Your task to perform on an android device: turn on airplane mode Image 0: 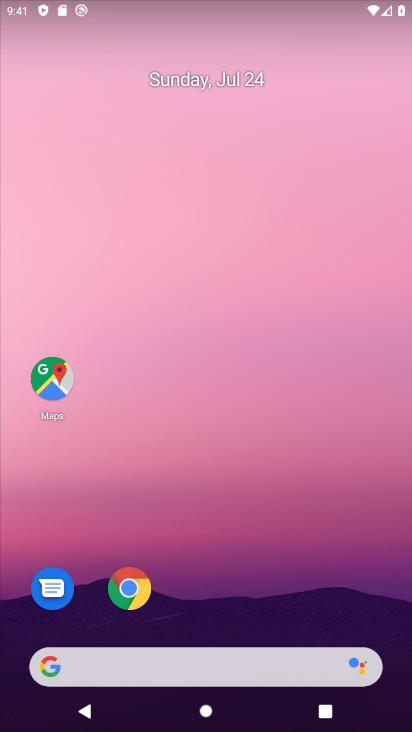
Step 0: drag from (248, 644) to (290, 298)
Your task to perform on an android device: turn on airplane mode Image 1: 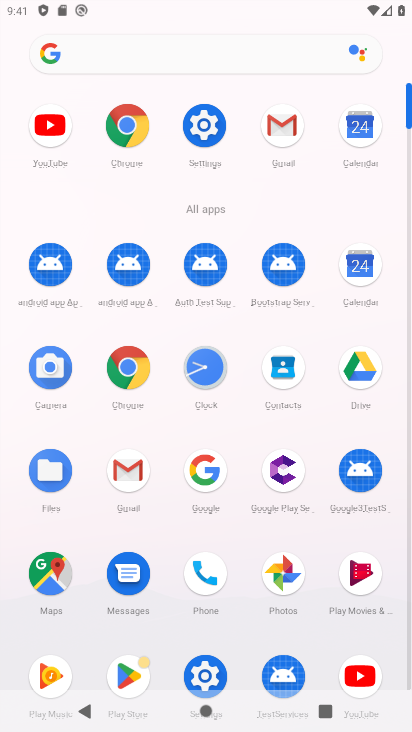
Step 1: click (204, 127)
Your task to perform on an android device: turn on airplane mode Image 2: 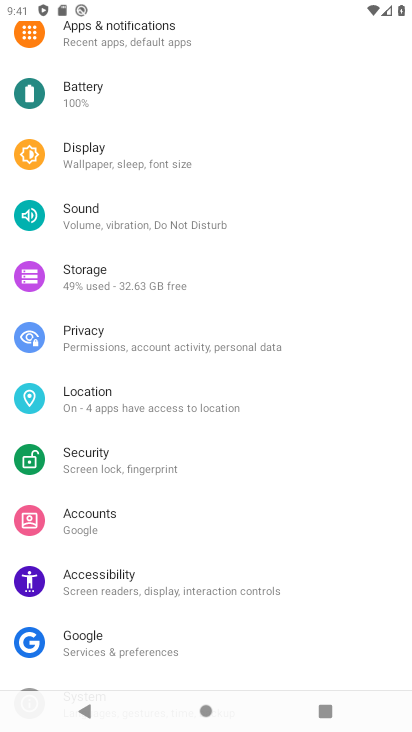
Step 2: drag from (128, 189) to (207, 585)
Your task to perform on an android device: turn on airplane mode Image 3: 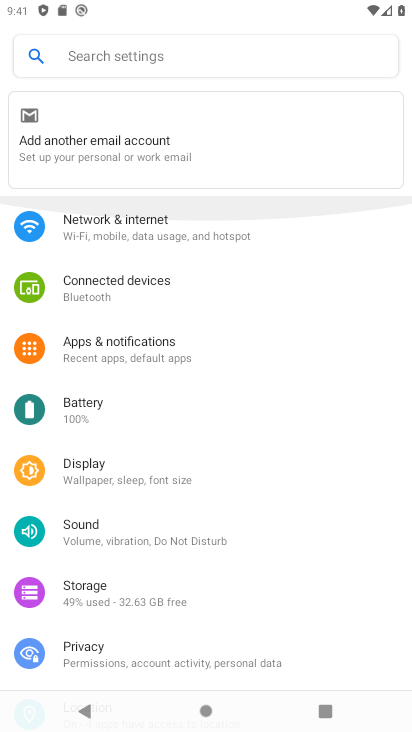
Step 3: drag from (123, 178) to (134, 385)
Your task to perform on an android device: turn on airplane mode Image 4: 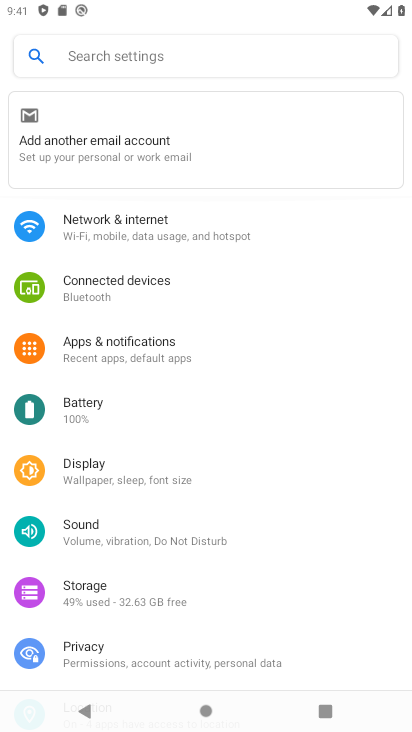
Step 4: drag from (158, 120) to (159, 554)
Your task to perform on an android device: turn on airplane mode Image 5: 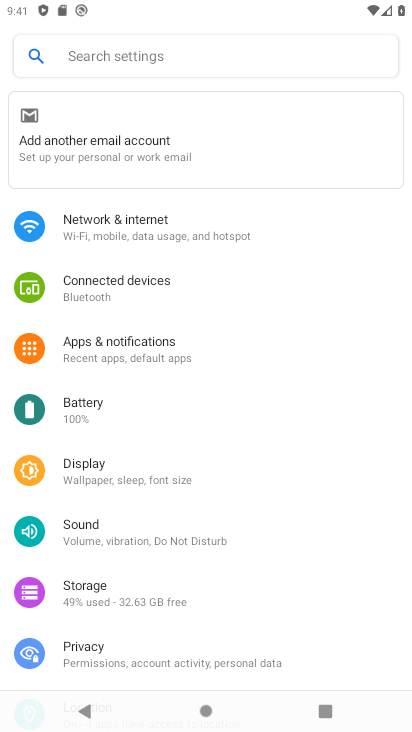
Step 5: click (133, 351)
Your task to perform on an android device: turn on airplane mode Image 6: 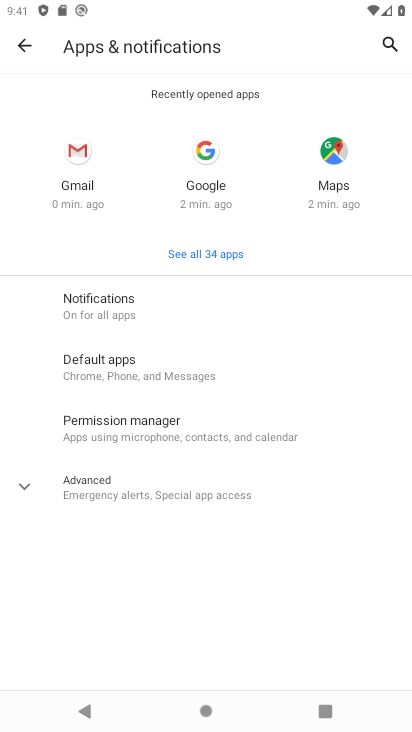
Step 6: click (110, 308)
Your task to perform on an android device: turn on airplane mode Image 7: 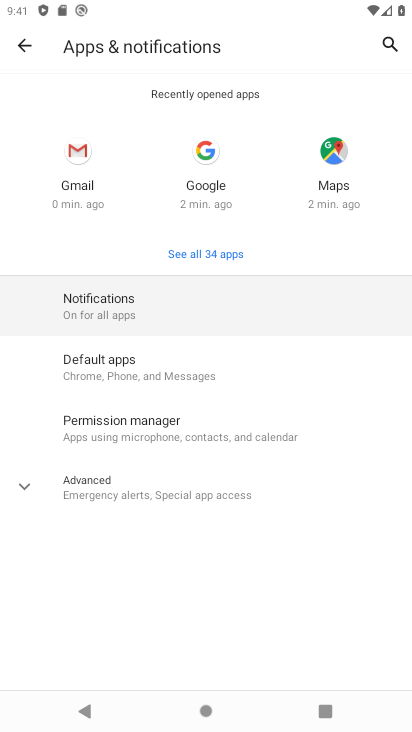
Step 7: click (118, 299)
Your task to perform on an android device: turn on airplane mode Image 8: 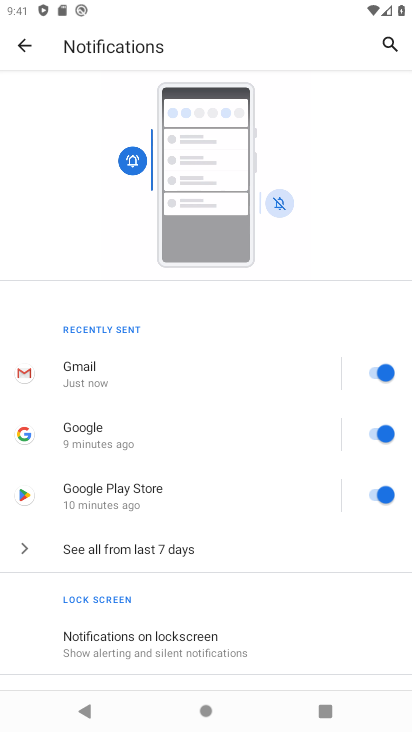
Step 8: press back button
Your task to perform on an android device: turn on airplane mode Image 9: 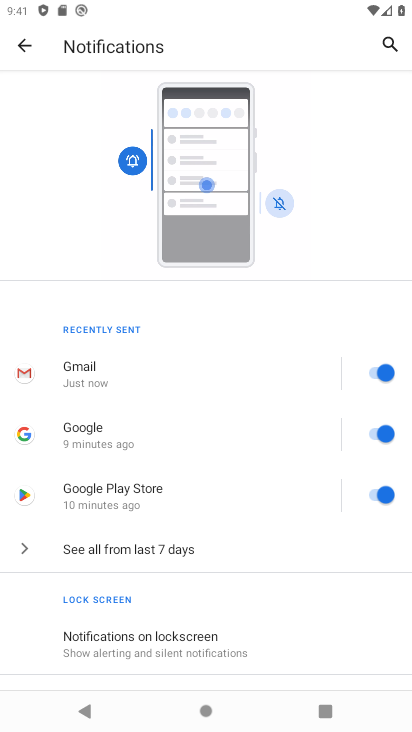
Step 9: press back button
Your task to perform on an android device: turn on airplane mode Image 10: 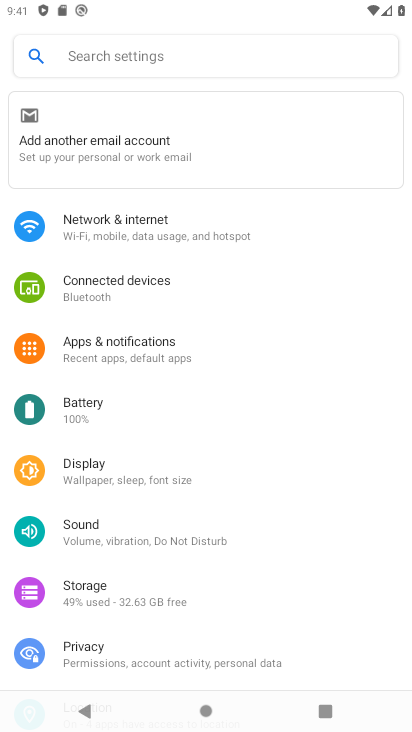
Step 10: click (130, 234)
Your task to perform on an android device: turn on airplane mode Image 11: 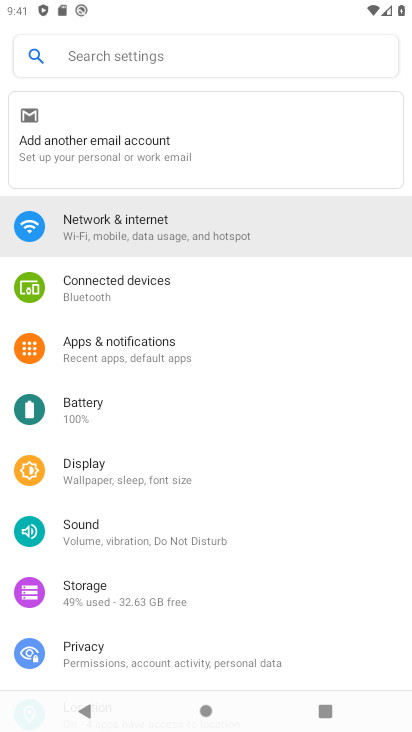
Step 11: click (132, 233)
Your task to perform on an android device: turn on airplane mode Image 12: 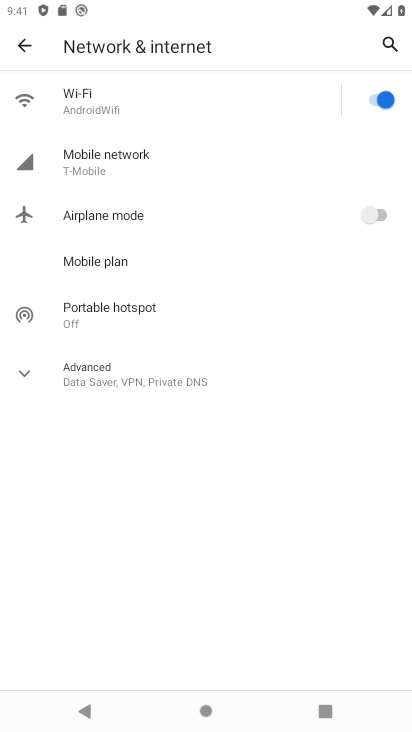
Step 12: click (371, 210)
Your task to perform on an android device: turn on airplane mode Image 13: 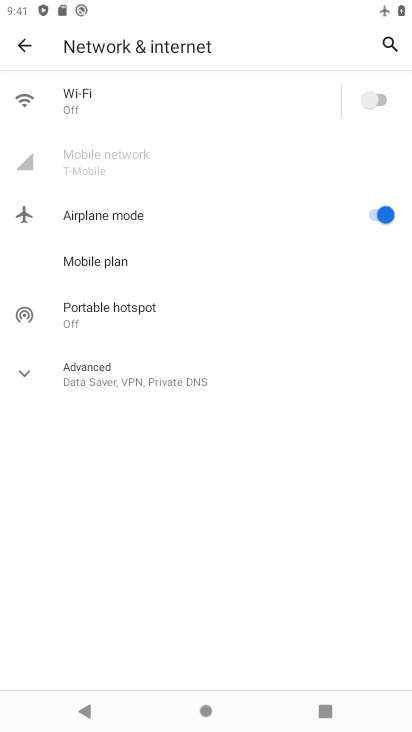
Step 13: task complete